Your task to perform on an android device: Open eBay Image 0: 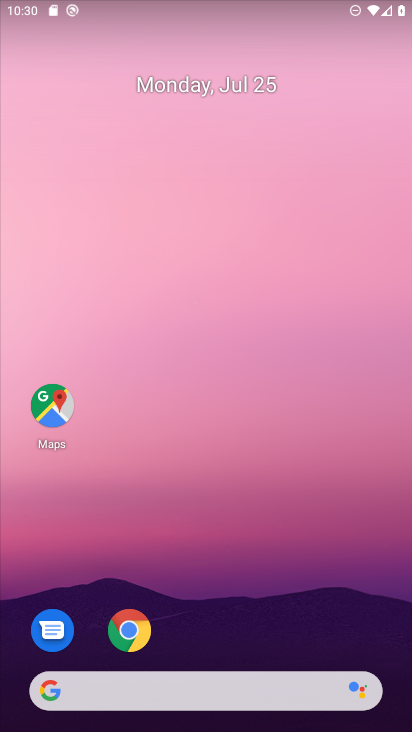
Step 0: drag from (316, 646) to (237, 139)
Your task to perform on an android device: Open eBay Image 1: 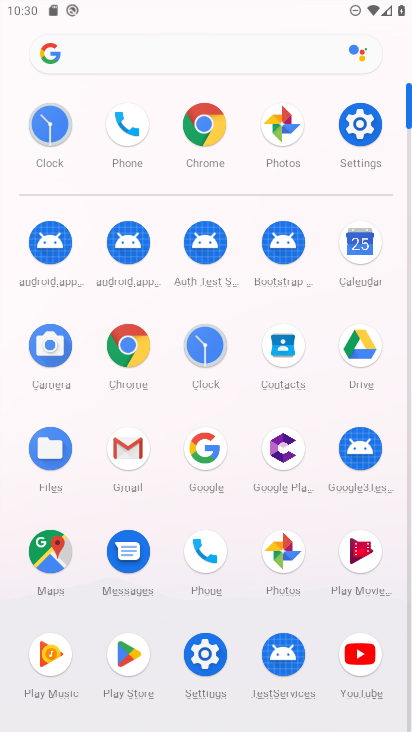
Step 1: click (204, 116)
Your task to perform on an android device: Open eBay Image 2: 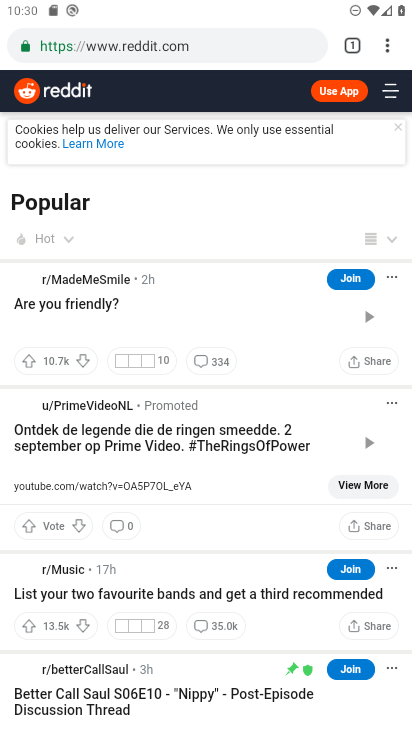
Step 2: click (218, 43)
Your task to perform on an android device: Open eBay Image 3: 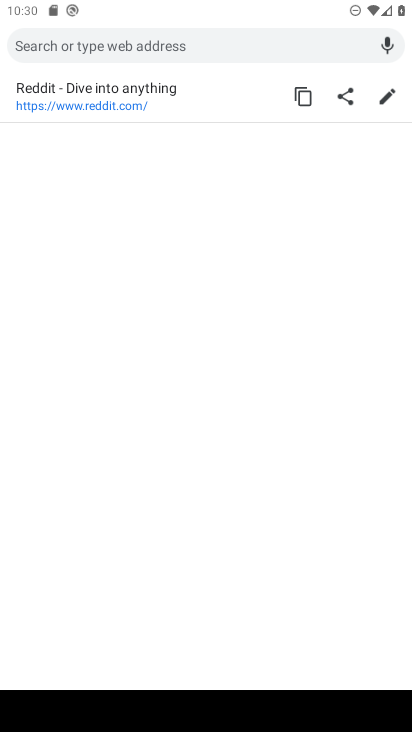
Step 3: type "ebay"
Your task to perform on an android device: Open eBay Image 4: 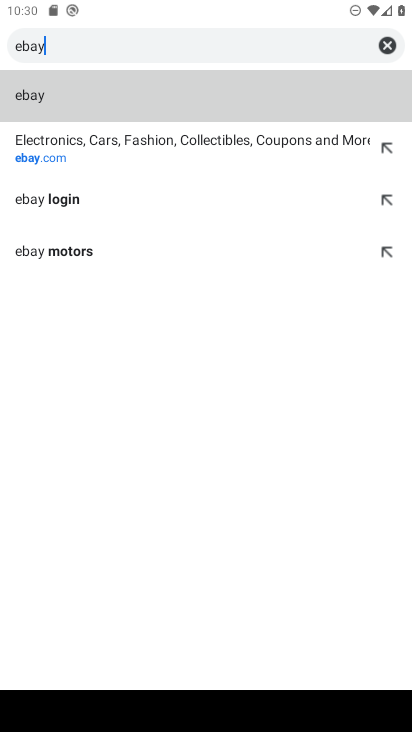
Step 4: click (39, 145)
Your task to perform on an android device: Open eBay Image 5: 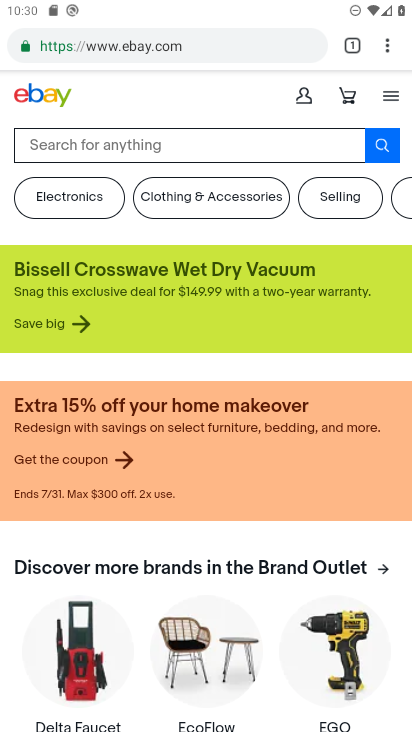
Step 5: task complete